Your task to perform on an android device: check the backup settings in the google photos Image 0: 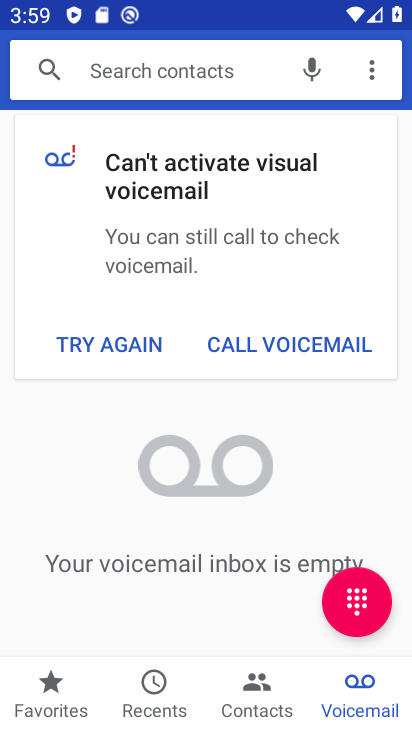
Step 0: press back button
Your task to perform on an android device: check the backup settings in the google photos Image 1: 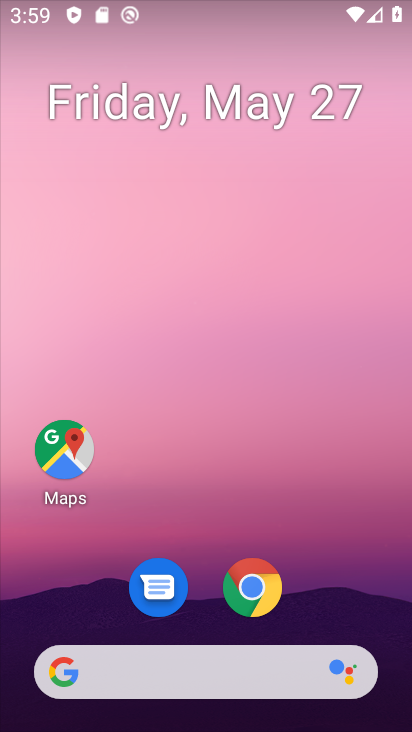
Step 1: drag from (312, 560) to (230, 76)
Your task to perform on an android device: check the backup settings in the google photos Image 2: 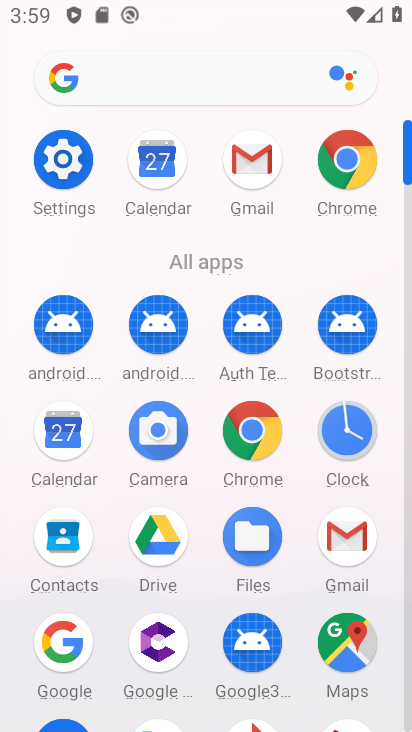
Step 2: drag from (17, 586) to (7, 265)
Your task to perform on an android device: check the backup settings in the google photos Image 3: 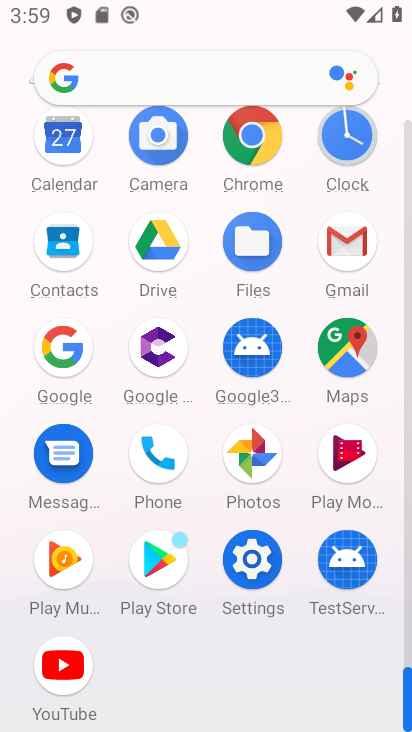
Step 3: click (250, 457)
Your task to perform on an android device: check the backup settings in the google photos Image 4: 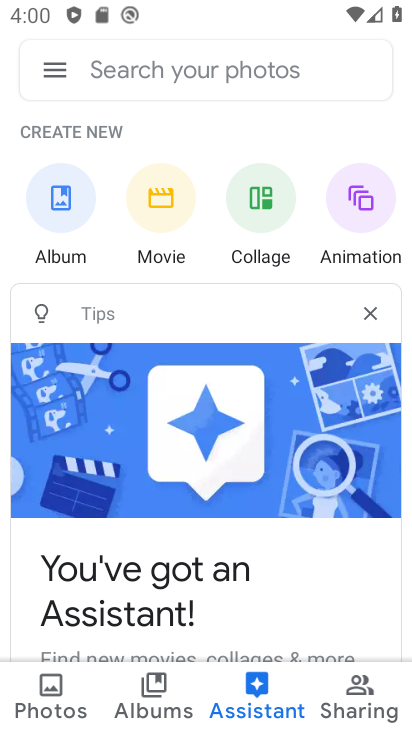
Step 4: click (50, 72)
Your task to perform on an android device: check the backup settings in the google photos Image 5: 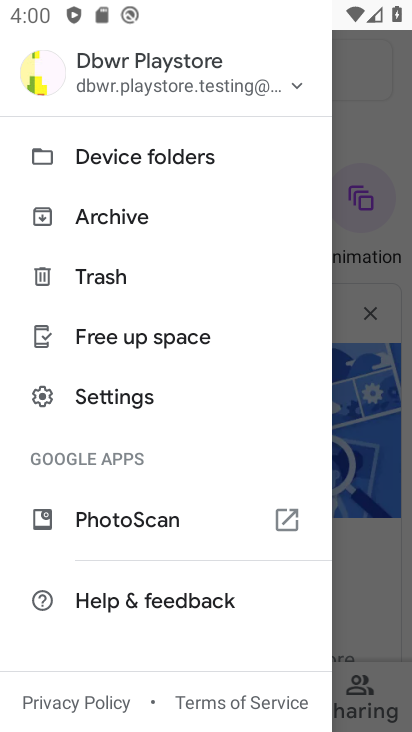
Step 5: drag from (185, 564) to (204, 181)
Your task to perform on an android device: check the backup settings in the google photos Image 6: 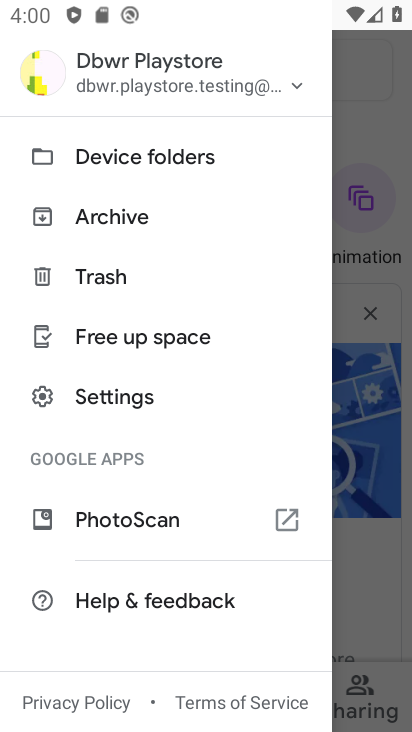
Step 6: click (128, 387)
Your task to perform on an android device: check the backup settings in the google photos Image 7: 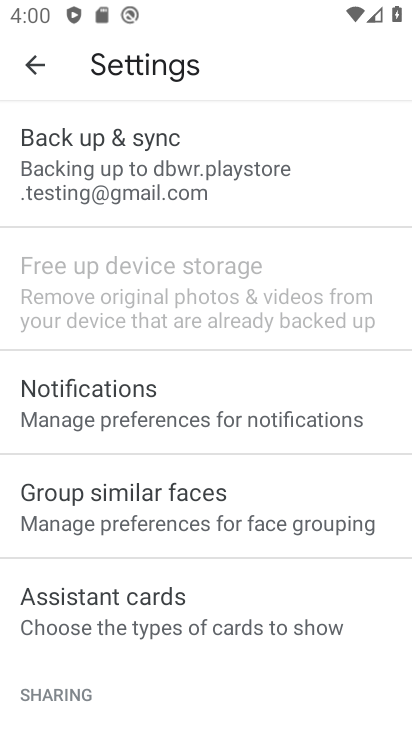
Step 7: drag from (241, 583) to (226, 143)
Your task to perform on an android device: check the backup settings in the google photos Image 8: 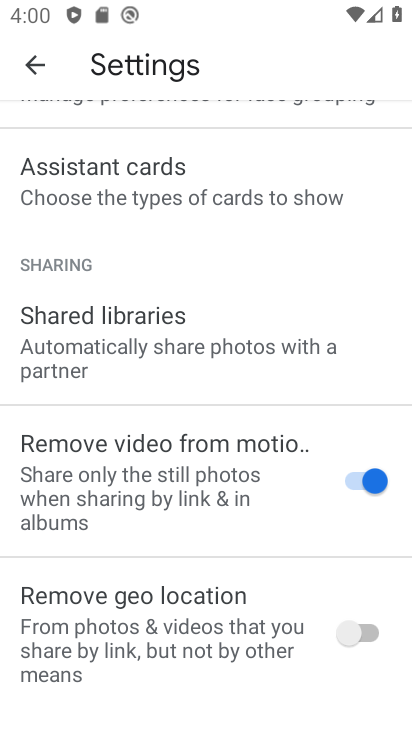
Step 8: drag from (230, 346) to (171, 636)
Your task to perform on an android device: check the backup settings in the google photos Image 9: 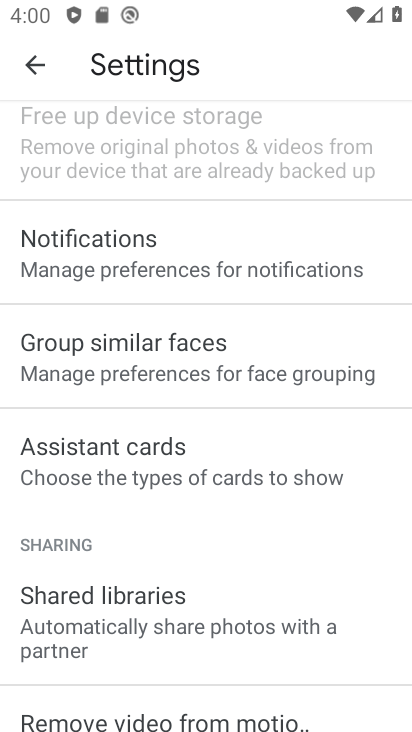
Step 9: drag from (221, 218) to (196, 616)
Your task to perform on an android device: check the backup settings in the google photos Image 10: 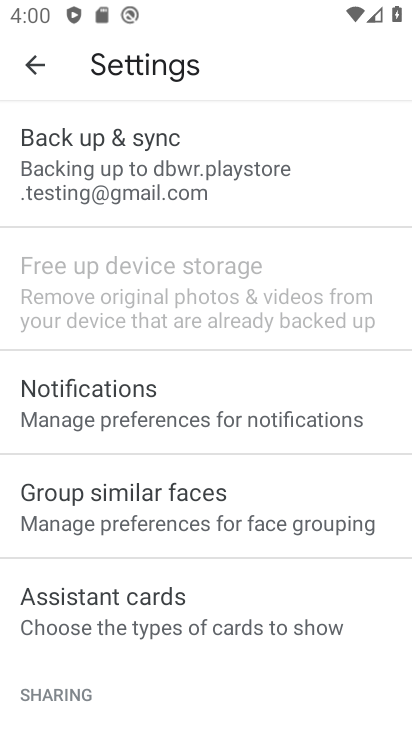
Step 10: click (215, 169)
Your task to perform on an android device: check the backup settings in the google photos Image 11: 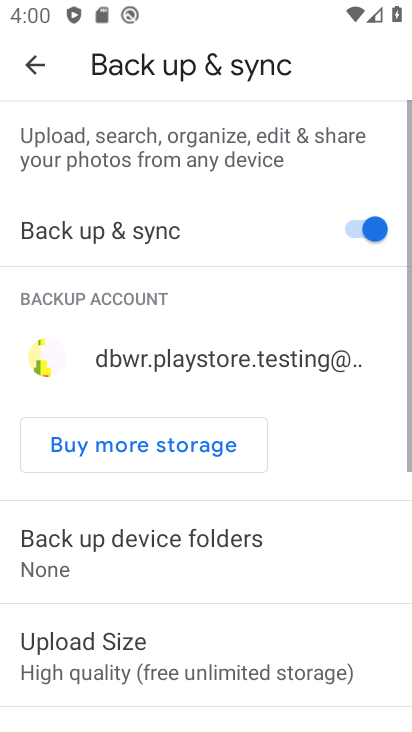
Step 11: drag from (262, 605) to (255, 155)
Your task to perform on an android device: check the backup settings in the google photos Image 12: 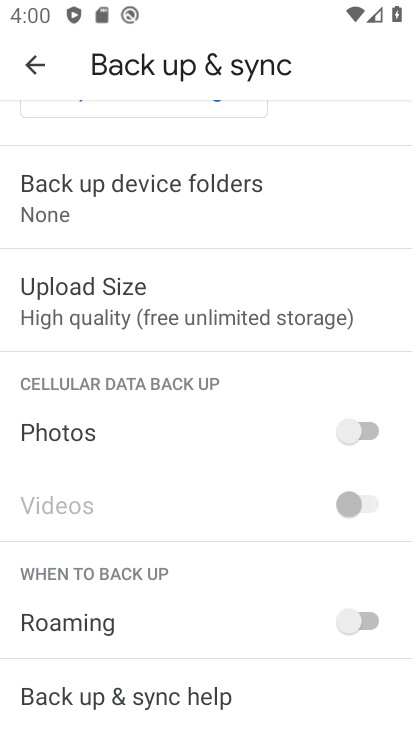
Step 12: click (174, 276)
Your task to perform on an android device: check the backup settings in the google photos Image 13: 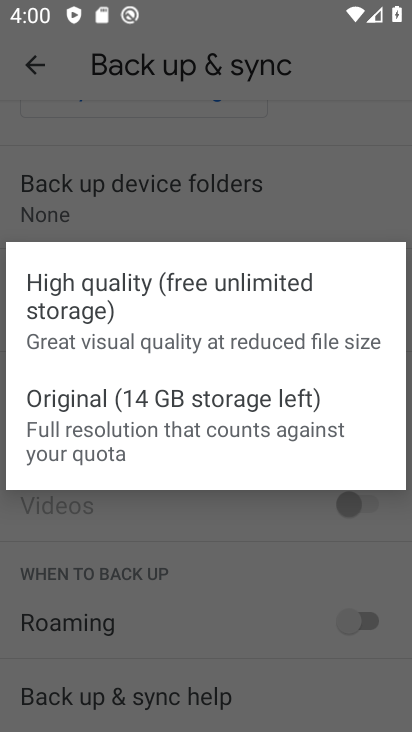
Step 13: click (124, 406)
Your task to perform on an android device: check the backup settings in the google photos Image 14: 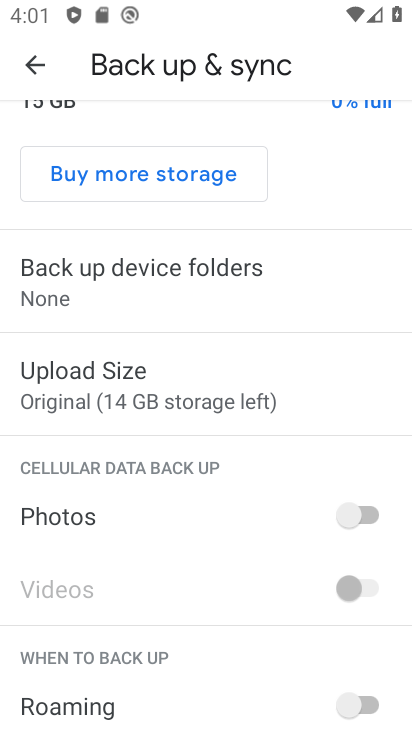
Step 14: task complete